Your task to perform on an android device: Open Google Maps Image 0: 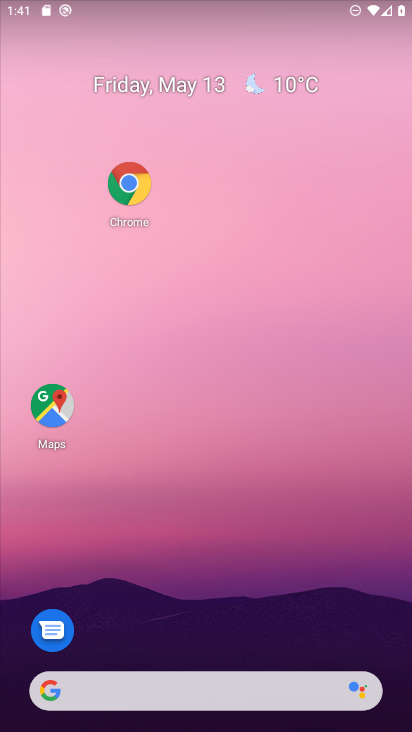
Step 0: click (47, 424)
Your task to perform on an android device: Open Google Maps Image 1: 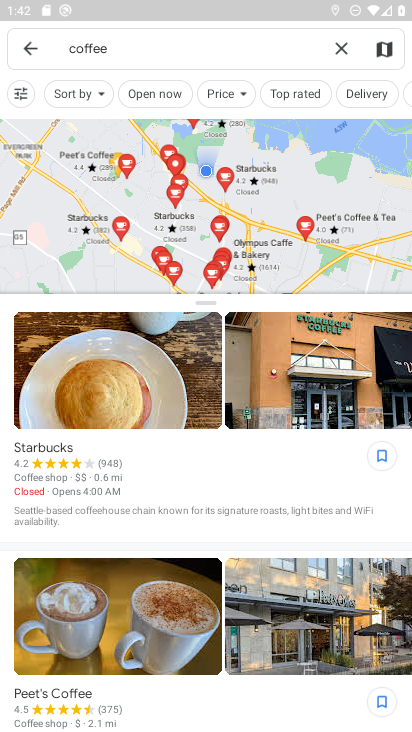
Step 1: click (339, 51)
Your task to perform on an android device: Open Google Maps Image 2: 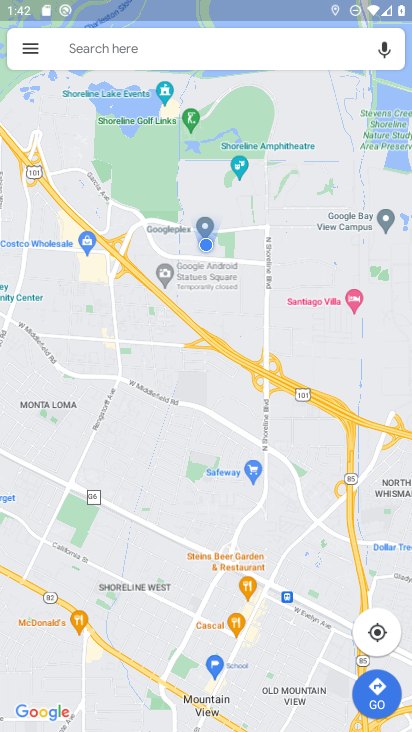
Step 2: task complete